Your task to perform on an android device: Open my contact list Image 0: 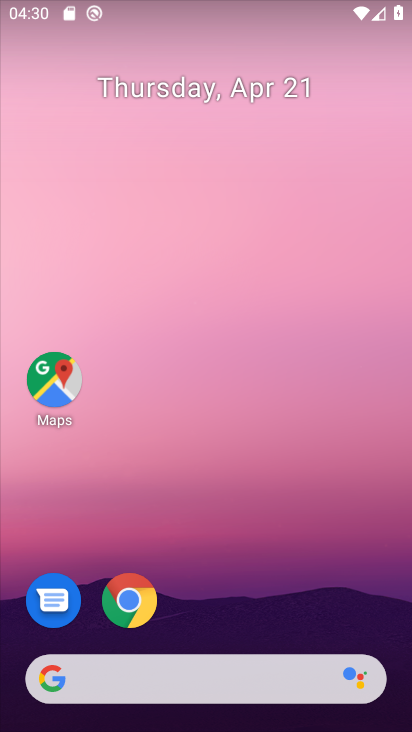
Step 0: drag from (368, 584) to (374, 8)
Your task to perform on an android device: Open my contact list Image 1: 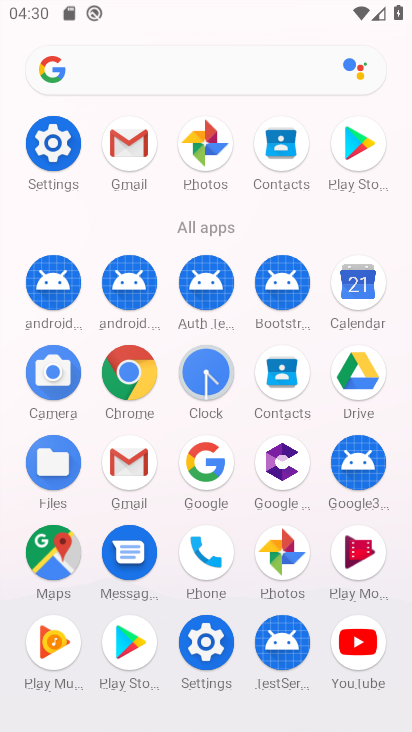
Step 1: click (284, 381)
Your task to perform on an android device: Open my contact list Image 2: 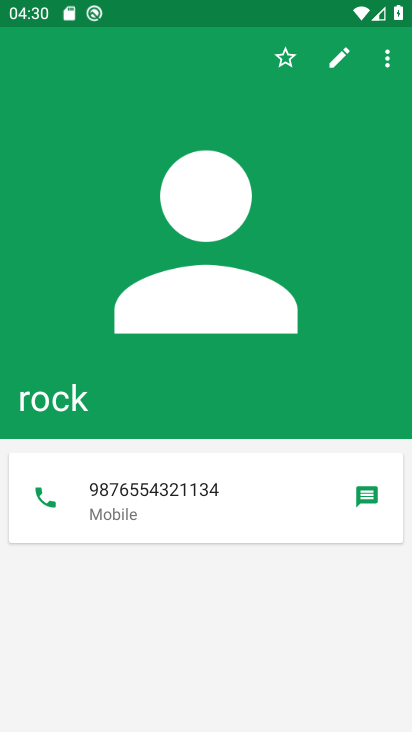
Step 2: task complete